Your task to perform on an android device: Go to Android settings Image 0: 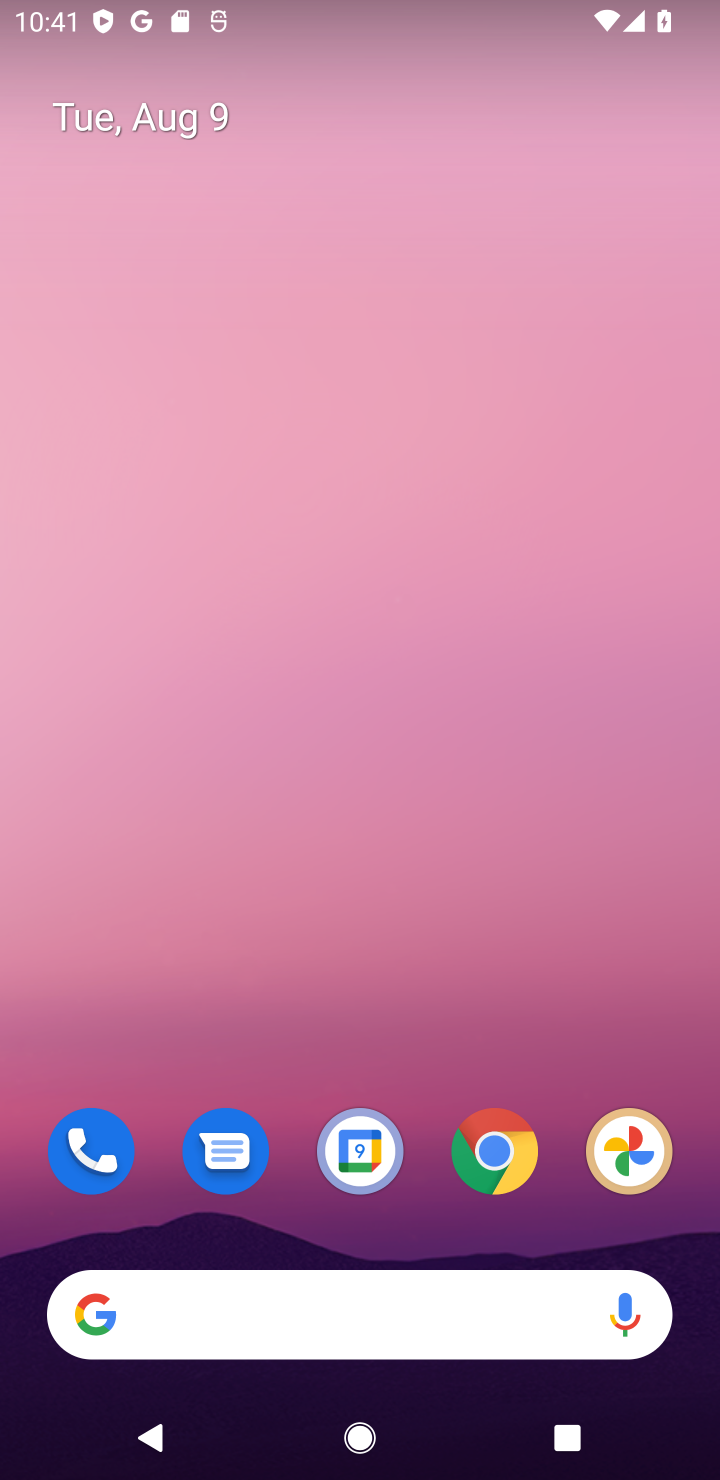
Step 0: drag from (438, 1084) to (344, 5)
Your task to perform on an android device: Go to Android settings Image 1: 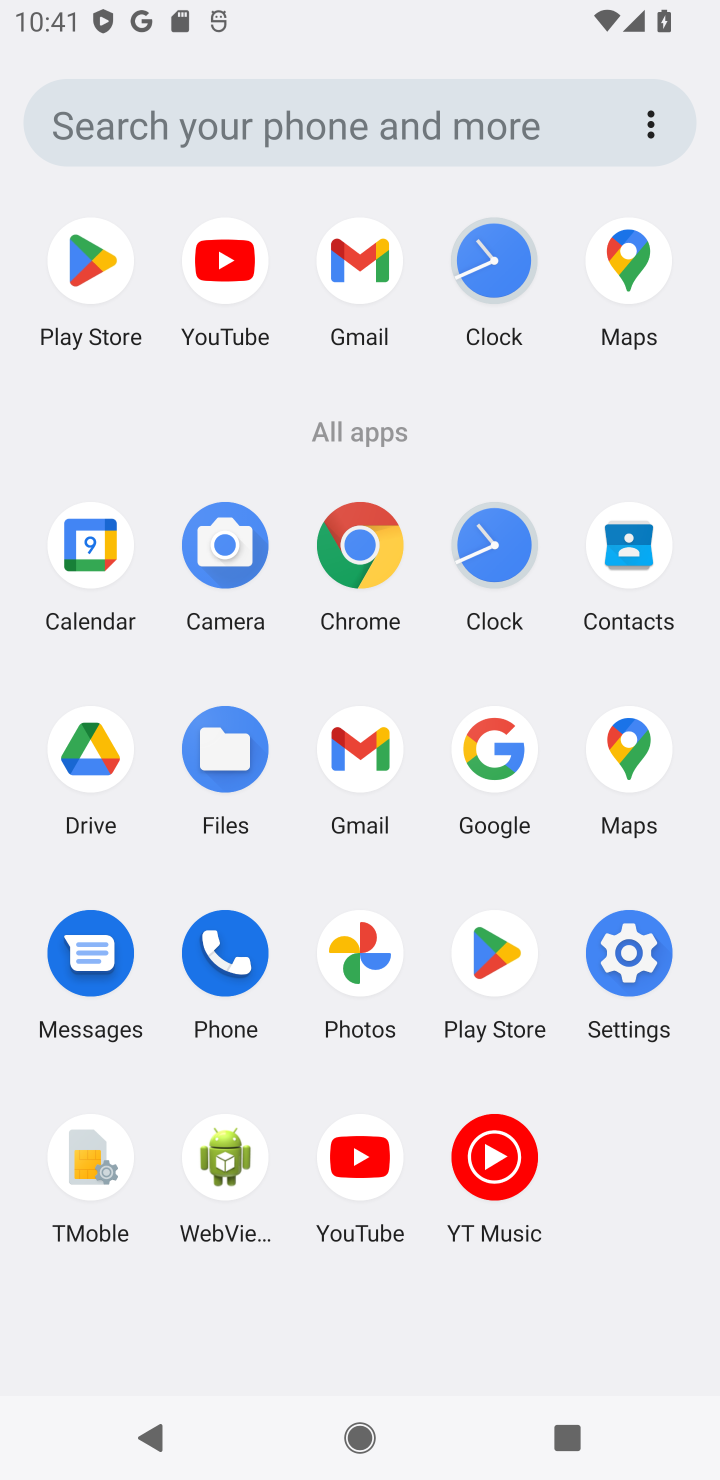
Step 1: click (629, 942)
Your task to perform on an android device: Go to Android settings Image 2: 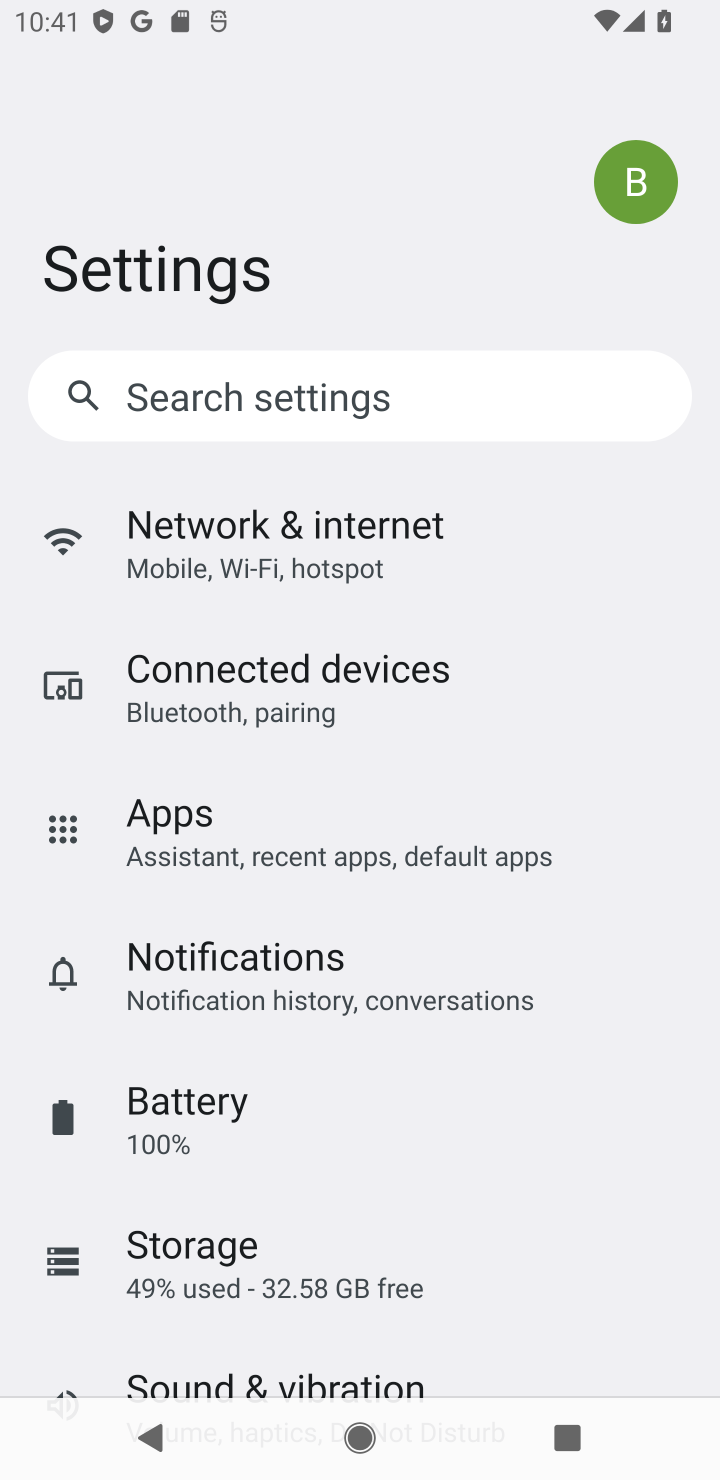
Step 2: task complete